Your task to perform on an android device: snooze an email in the gmail app Image 0: 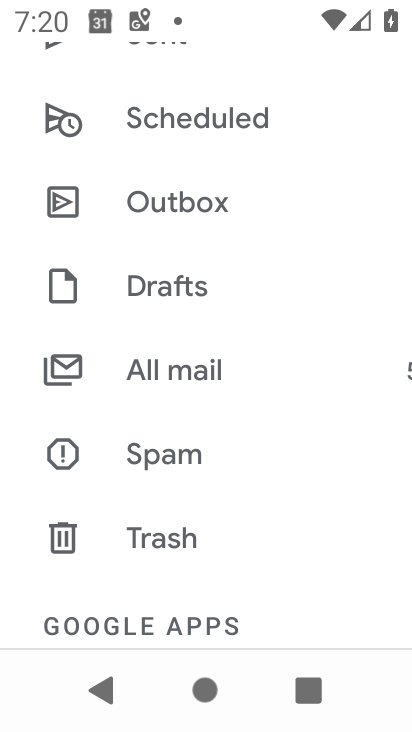
Step 0: drag from (390, 666) to (411, 590)
Your task to perform on an android device: snooze an email in the gmail app Image 1: 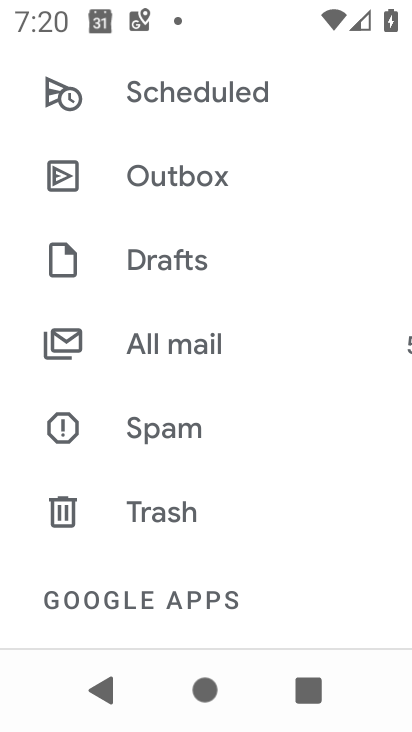
Step 1: press home button
Your task to perform on an android device: snooze an email in the gmail app Image 2: 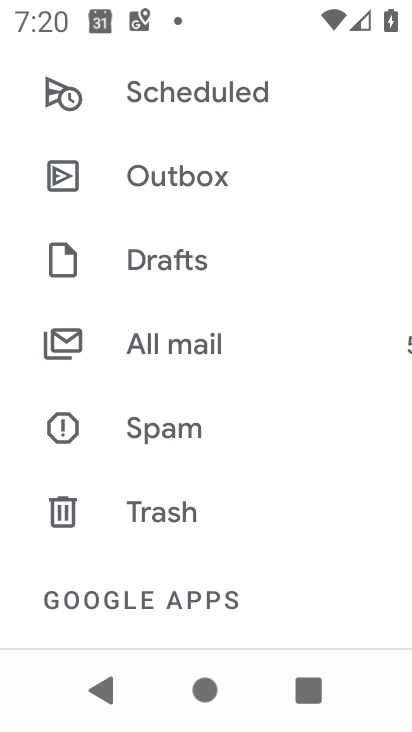
Step 2: drag from (411, 590) to (403, 438)
Your task to perform on an android device: snooze an email in the gmail app Image 3: 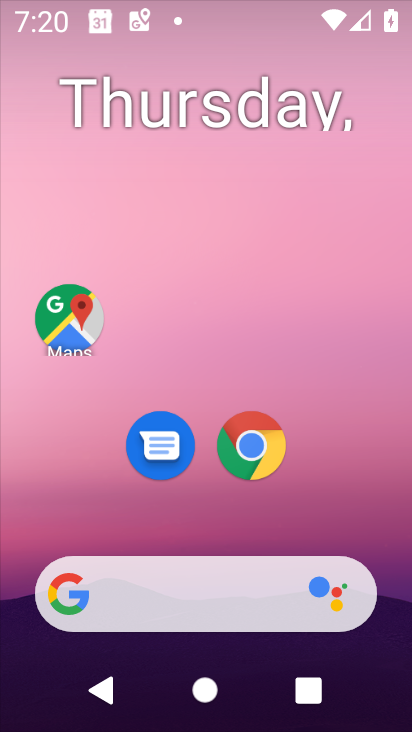
Step 3: drag from (350, 576) to (358, 6)
Your task to perform on an android device: snooze an email in the gmail app Image 4: 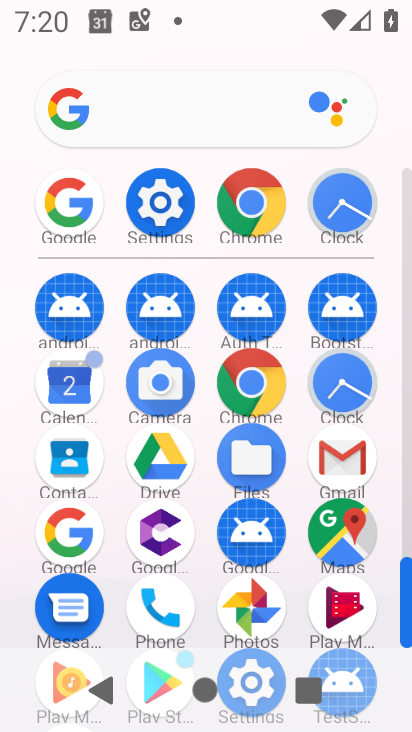
Step 4: click (337, 458)
Your task to perform on an android device: snooze an email in the gmail app Image 5: 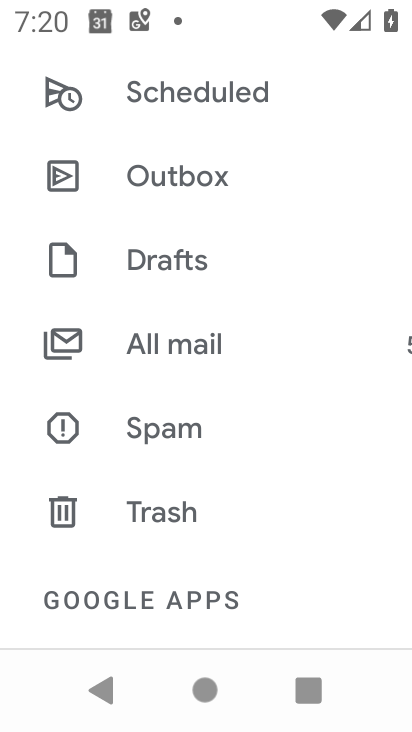
Step 5: press back button
Your task to perform on an android device: snooze an email in the gmail app Image 6: 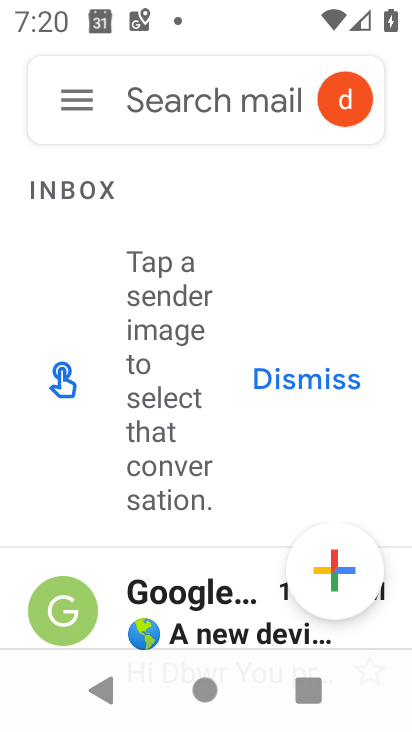
Step 6: click (153, 594)
Your task to perform on an android device: snooze an email in the gmail app Image 7: 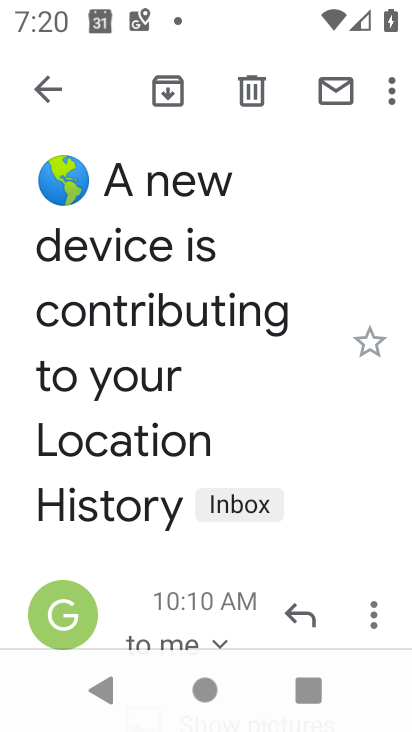
Step 7: click (389, 81)
Your task to perform on an android device: snooze an email in the gmail app Image 8: 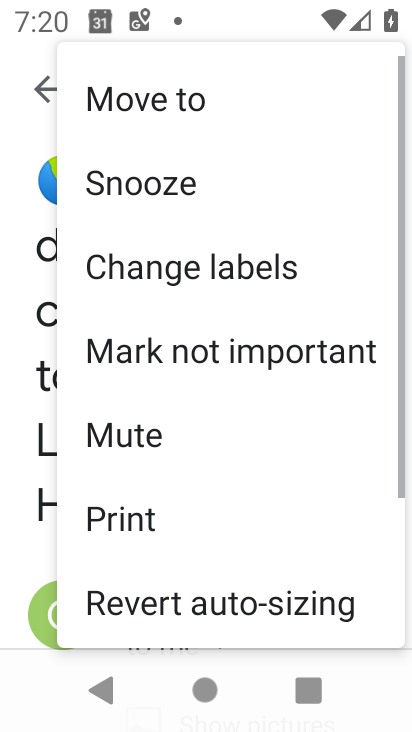
Step 8: click (215, 198)
Your task to perform on an android device: snooze an email in the gmail app Image 9: 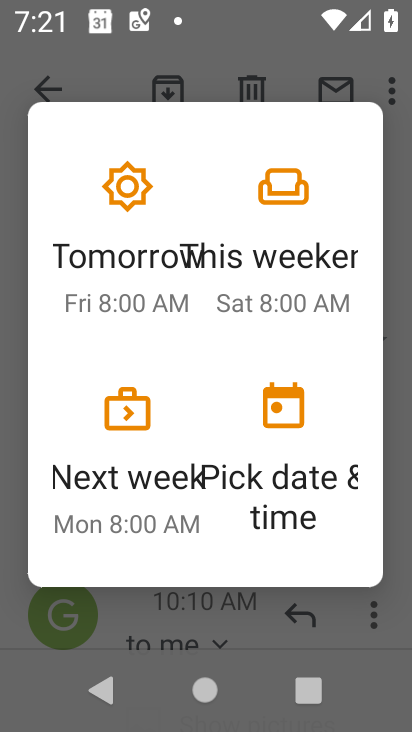
Step 9: click (297, 237)
Your task to perform on an android device: snooze an email in the gmail app Image 10: 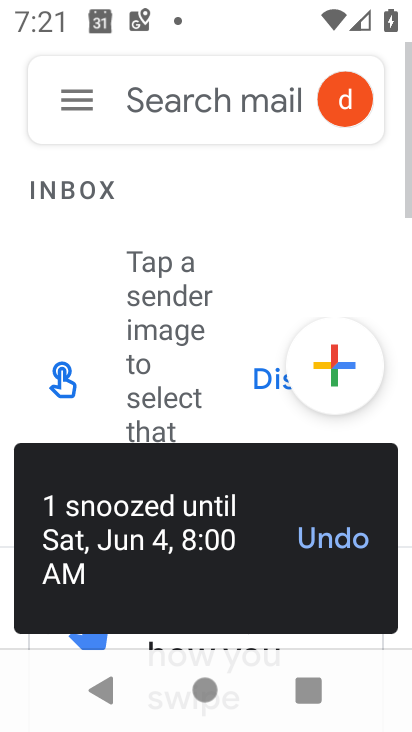
Step 10: task complete